Your task to perform on an android device: toggle javascript in the chrome app Image 0: 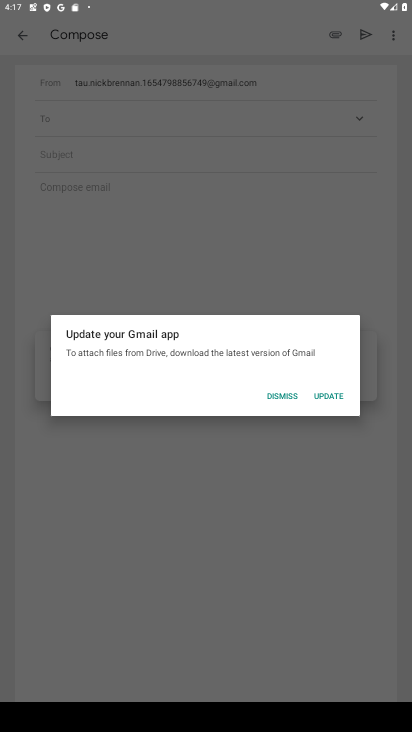
Step 0: press home button
Your task to perform on an android device: toggle javascript in the chrome app Image 1: 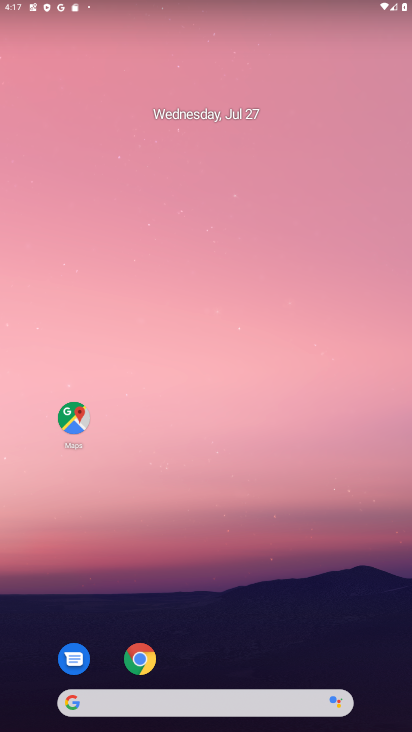
Step 1: click (139, 653)
Your task to perform on an android device: toggle javascript in the chrome app Image 2: 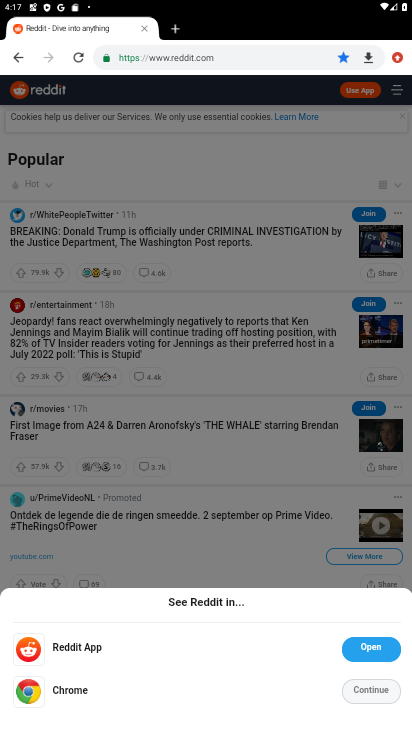
Step 2: click (397, 57)
Your task to perform on an android device: toggle javascript in the chrome app Image 3: 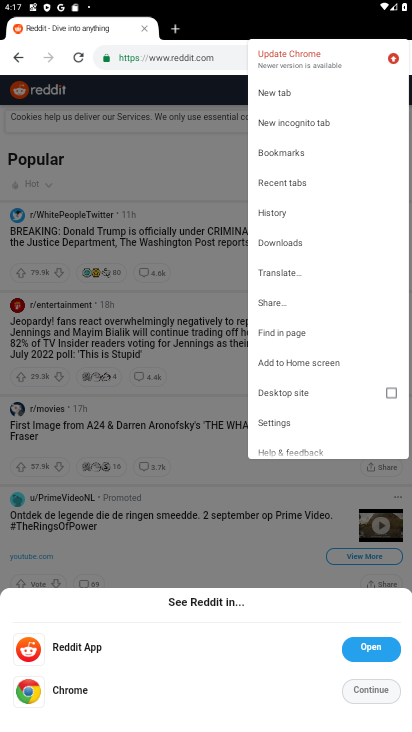
Step 3: click (273, 427)
Your task to perform on an android device: toggle javascript in the chrome app Image 4: 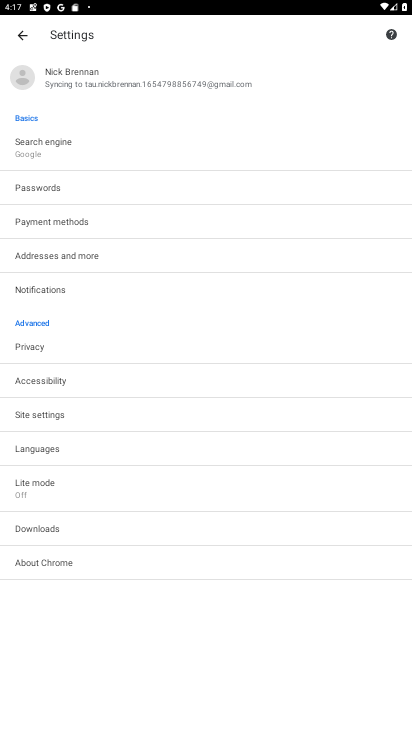
Step 4: click (95, 417)
Your task to perform on an android device: toggle javascript in the chrome app Image 5: 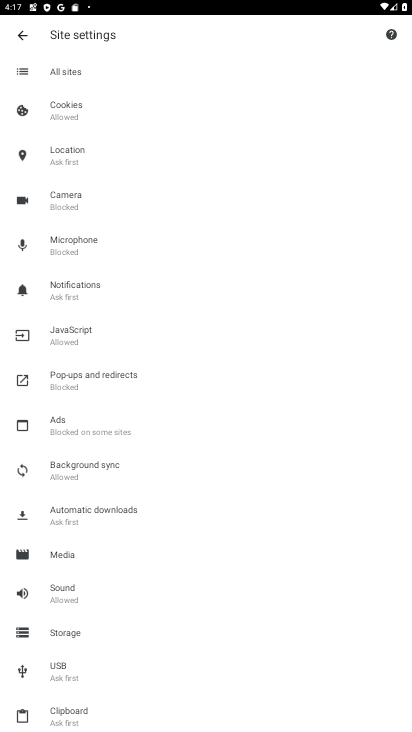
Step 5: click (89, 341)
Your task to perform on an android device: toggle javascript in the chrome app Image 6: 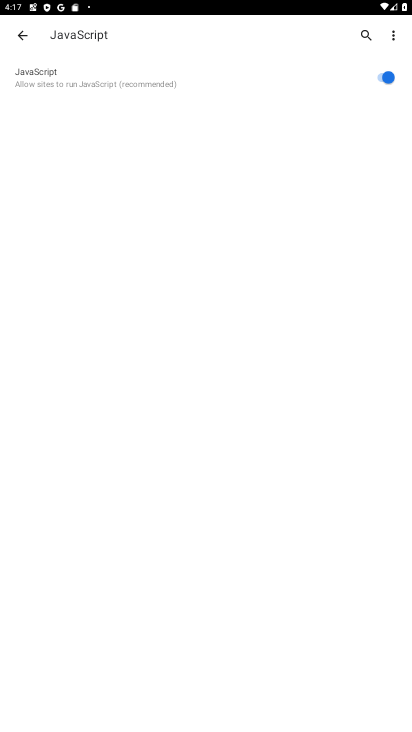
Step 6: click (384, 73)
Your task to perform on an android device: toggle javascript in the chrome app Image 7: 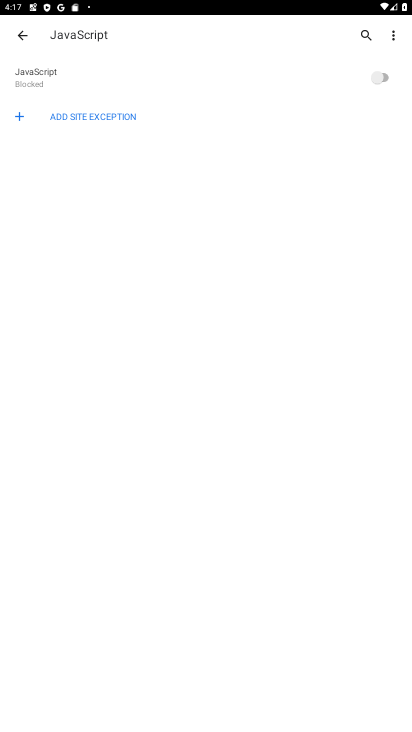
Step 7: task complete